Your task to perform on an android device: Open calendar and show me the first week of next month Image 0: 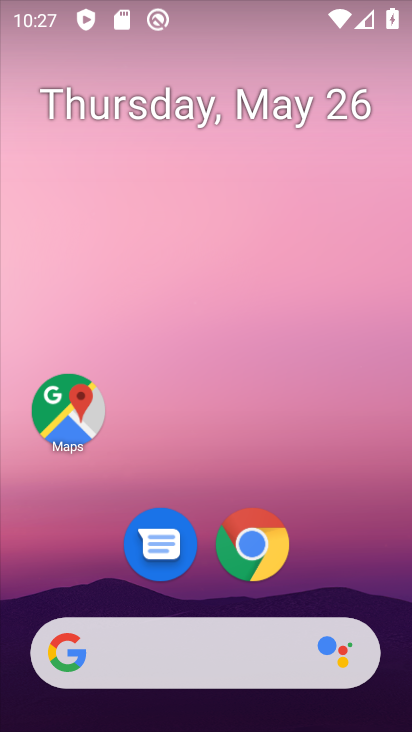
Step 0: drag from (326, 470) to (227, 98)
Your task to perform on an android device: Open calendar and show me the first week of next month Image 1: 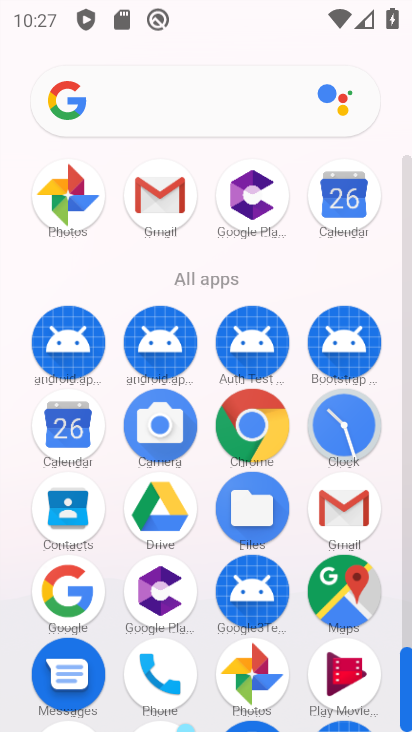
Step 1: drag from (0, 513) to (3, 307)
Your task to perform on an android device: Open calendar and show me the first week of next month Image 2: 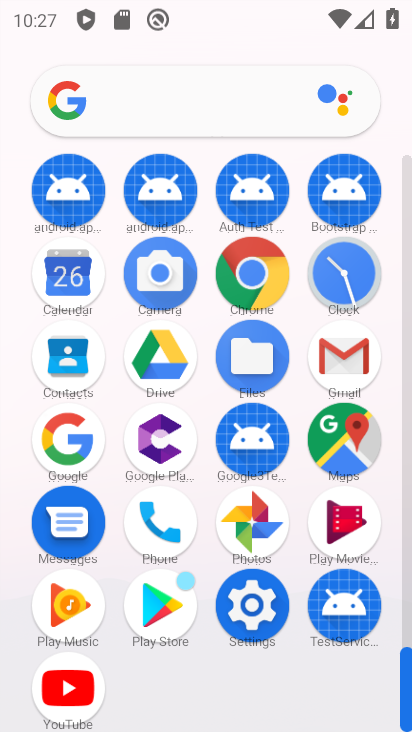
Step 2: click (60, 272)
Your task to perform on an android device: Open calendar and show me the first week of next month Image 3: 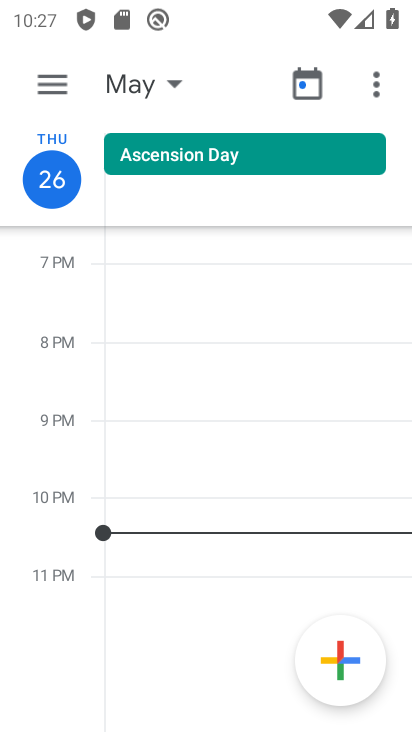
Step 3: click (159, 81)
Your task to perform on an android device: Open calendar and show me the first week of next month Image 4: 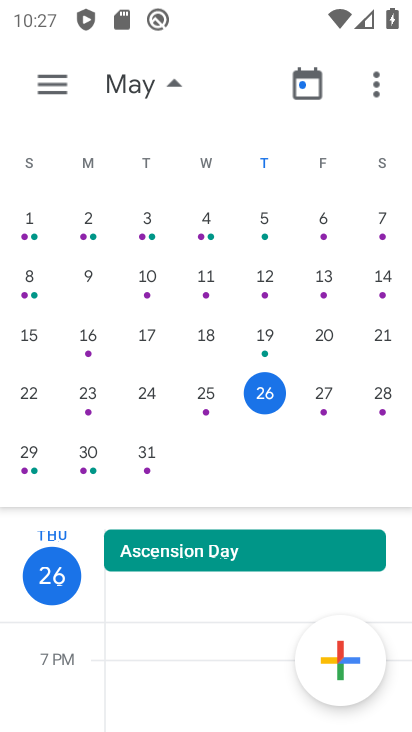
Step 4: drag from (351, 336) to (2, 329)
Your task to perform on an android device: Open calendar and show me the first week of next month Image 5: 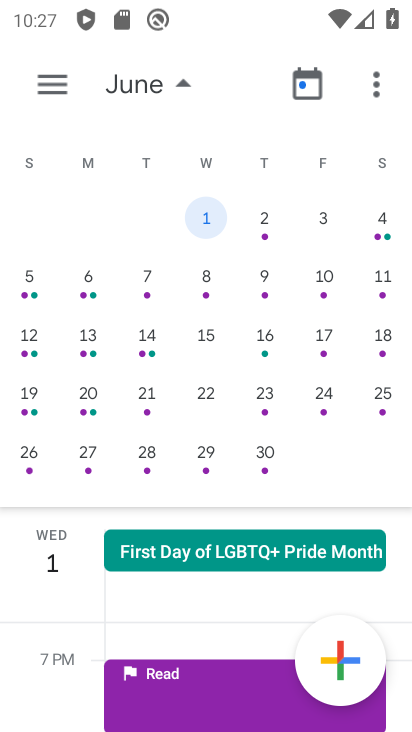
Step 5: click (38, 74)
Your task to perform on an android device: Open calendar and show me the first week of next month Image 6: 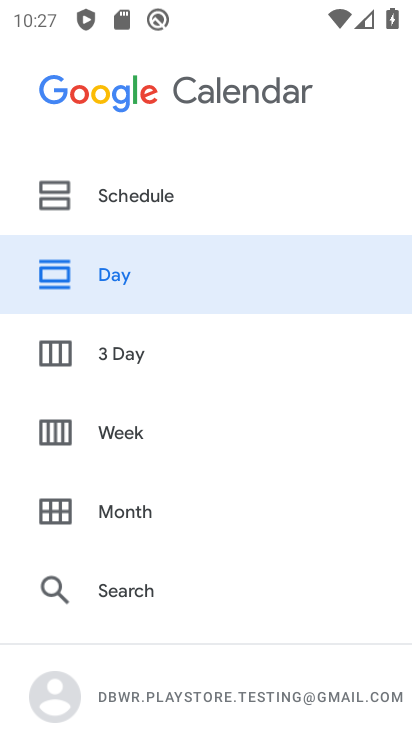
Step 6: click (147, 429)
Your task to perform on an android device: Open calendar and show me the first week of next month Image 7: 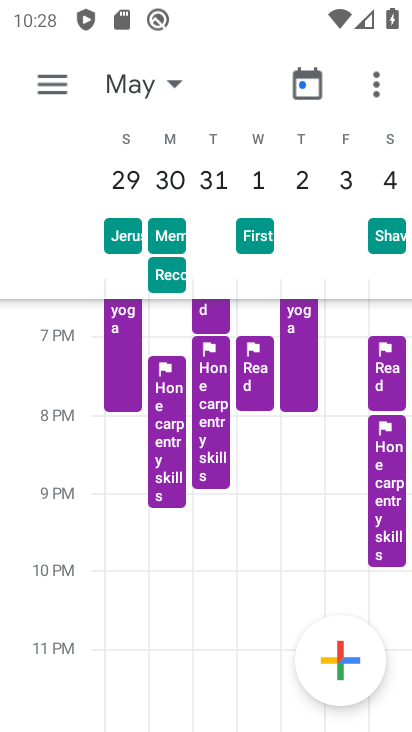
Step 7: task complete